Your task to perform on an android device: find which apps use the phone's location Image 0: 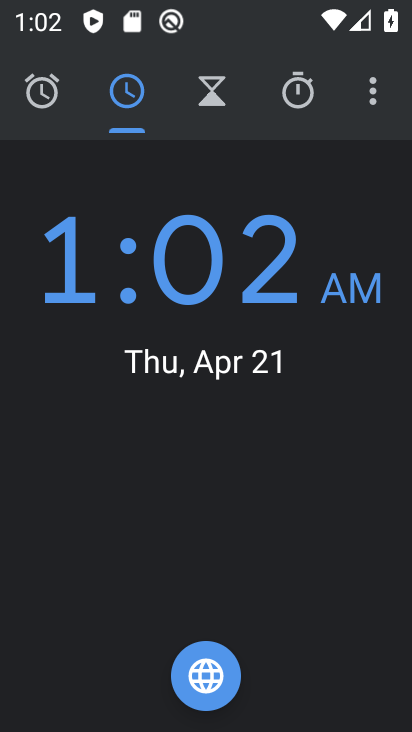
Step 0: press home button
Your task to perform on an android device: find which apps use the phone's location Image 1: 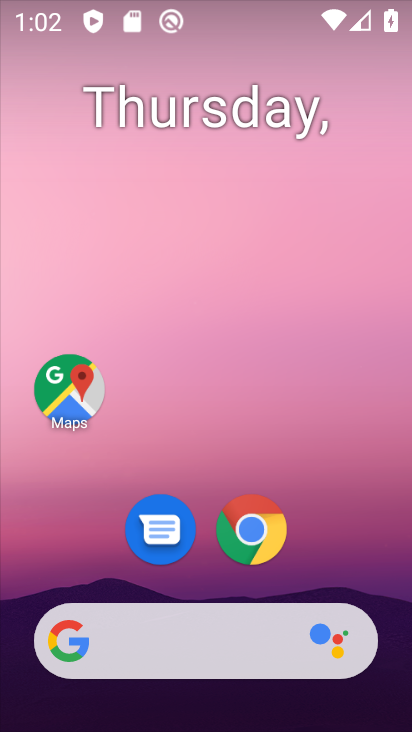
Step 1: drag from (209, 716) to (209, 66)
Your task to perform on an android device: find which apps use the phone's location Image 2: 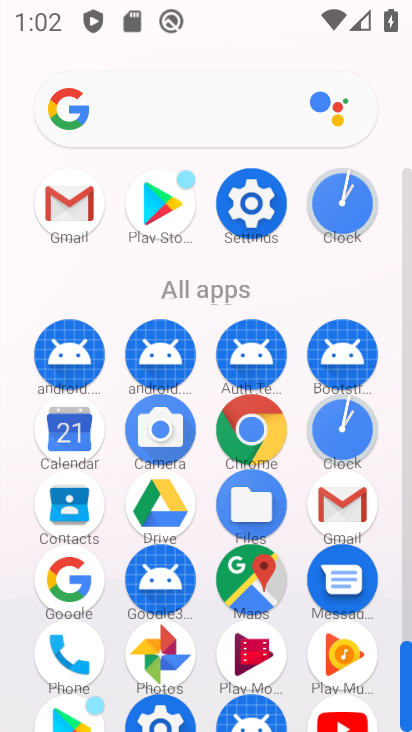
Step 2: click (255, 205)
Your task to perform on an android device: find which apps use the phone's location Image 3: 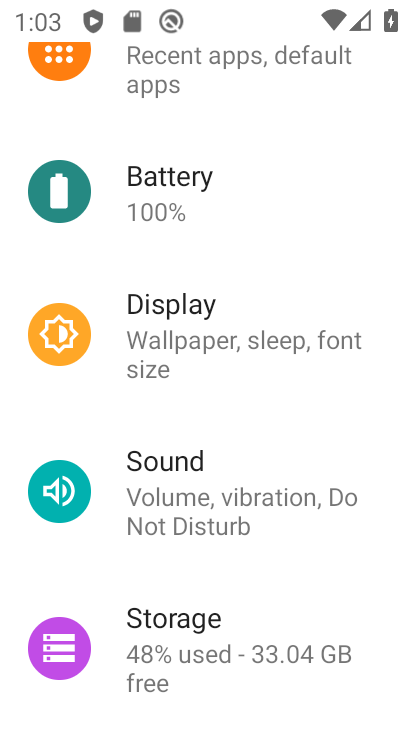
Step 3: drag from (175, 569) to (187, 176)
Your task to perform on an android device: find which apps use the phone's location Image 4: 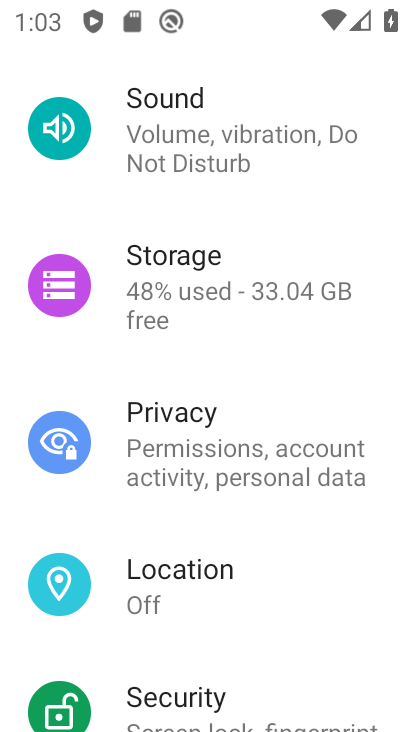
Step 4: click (151, 566)
Your task to perform on an android device: find which apps use the phone's location Image 5: 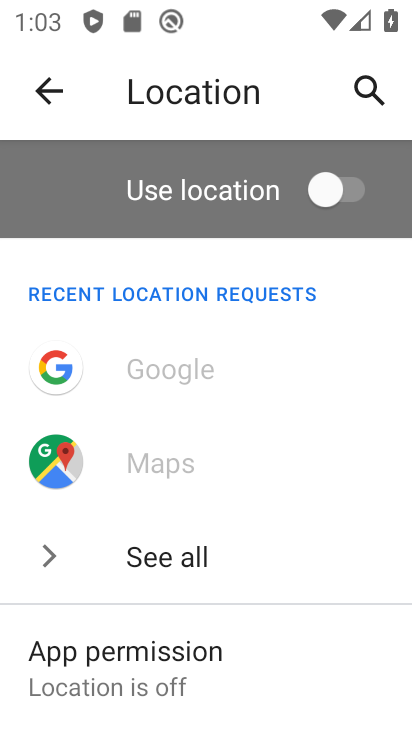
Step 5: click (162, 664)
Your task to perform on an android device: find which apps use the phone's location Image 6: 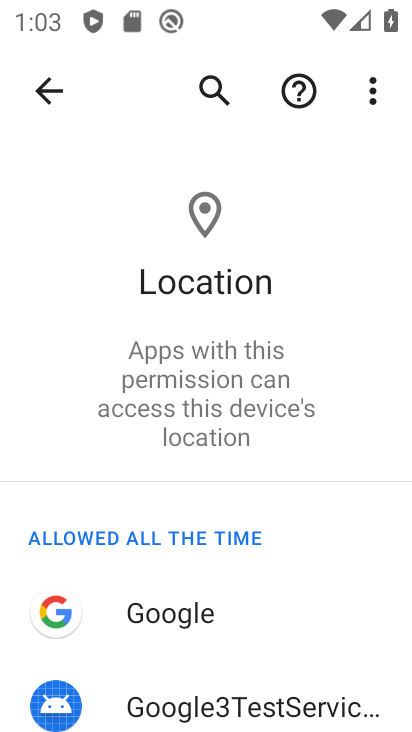
Step 6: task complete